Your task to perform on an android device: Open CNN.com Image 0: 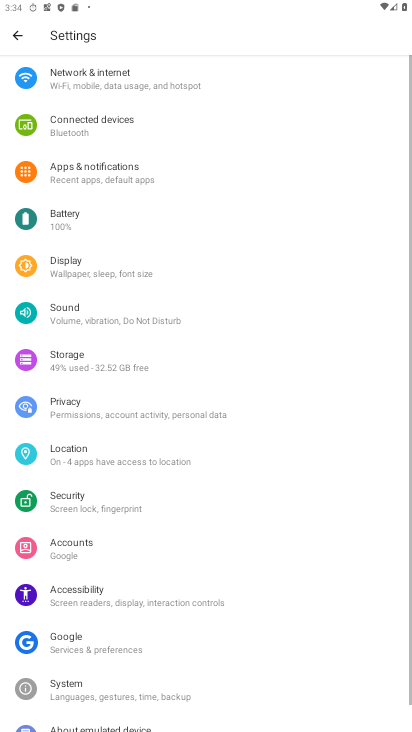
Step 0: press home button
Your task to perform on an android device: Open CNN.com Image 1: 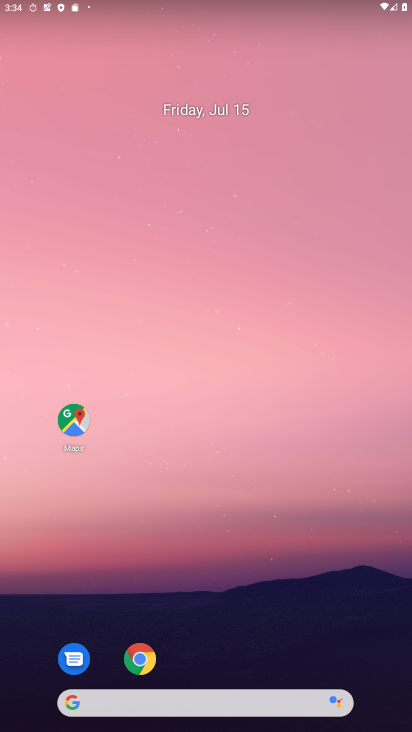
Step 1: click (139, 656)
Your task to perform on an android device: Open CNN.com Image 2: 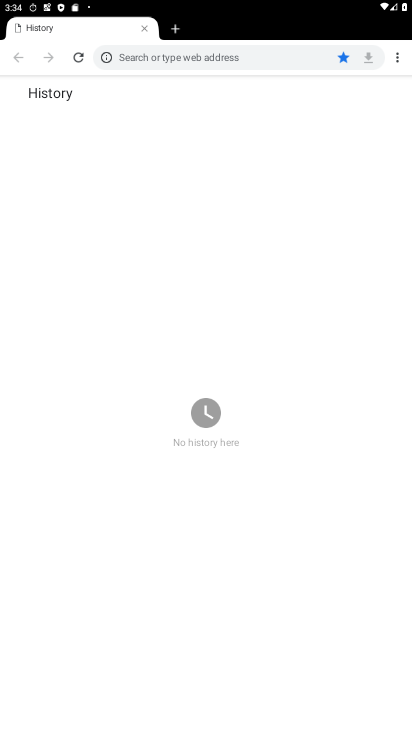
Step 2: click (198, 56)
Your task to perform on an android device: Open CNN.com Image 3: 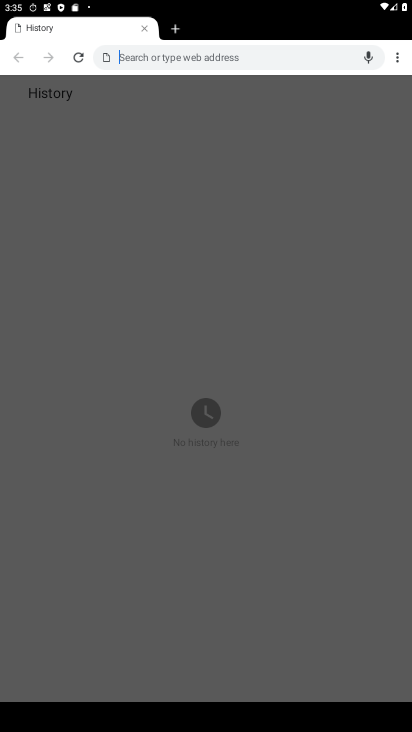
Step 3: type "CNN.com"
Your task to perform on an android device: Open CNN.com Image 4: 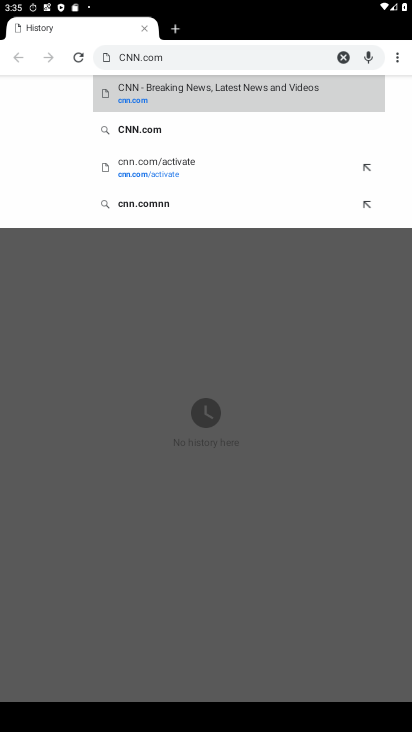
Step 4: click (130, 100)
Your task to perform on an android device: Open CNN.com Image 5: 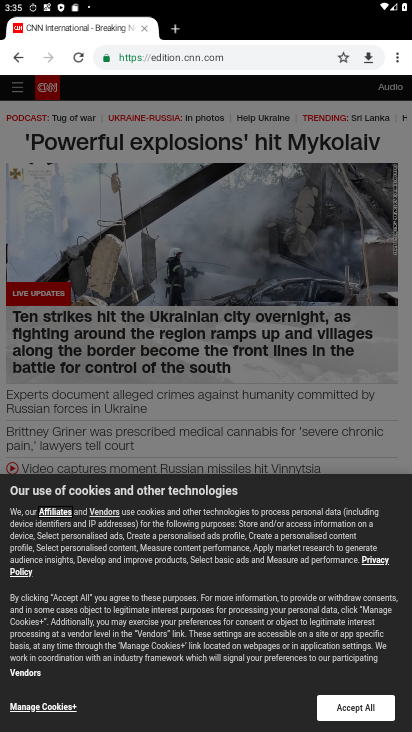
Step 5: task complete